Your task to perform on an android device: install app "Microsoft Authenticator" Image 0: 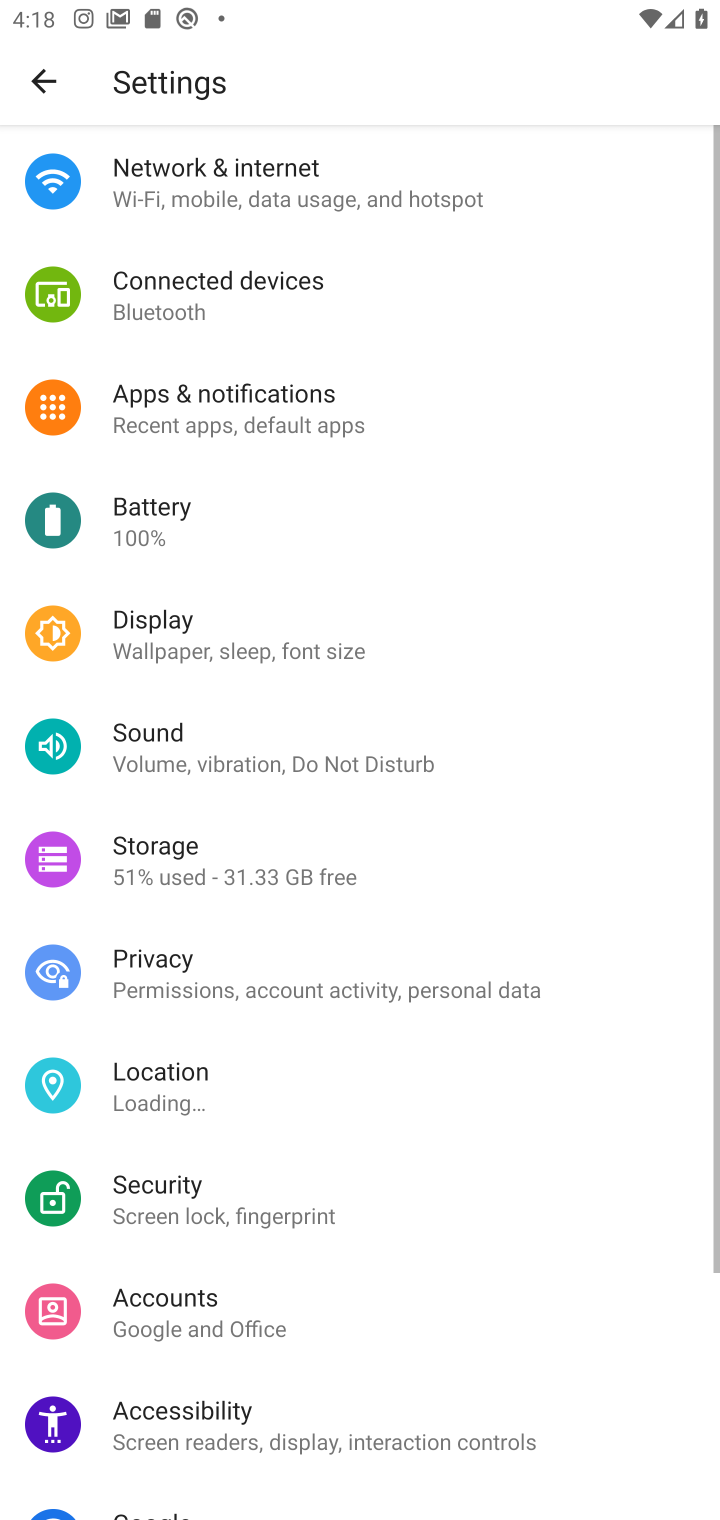
Step 0: press home button
Your task to perform on an android device: install app "Microsoft Authenticator" Image 1: 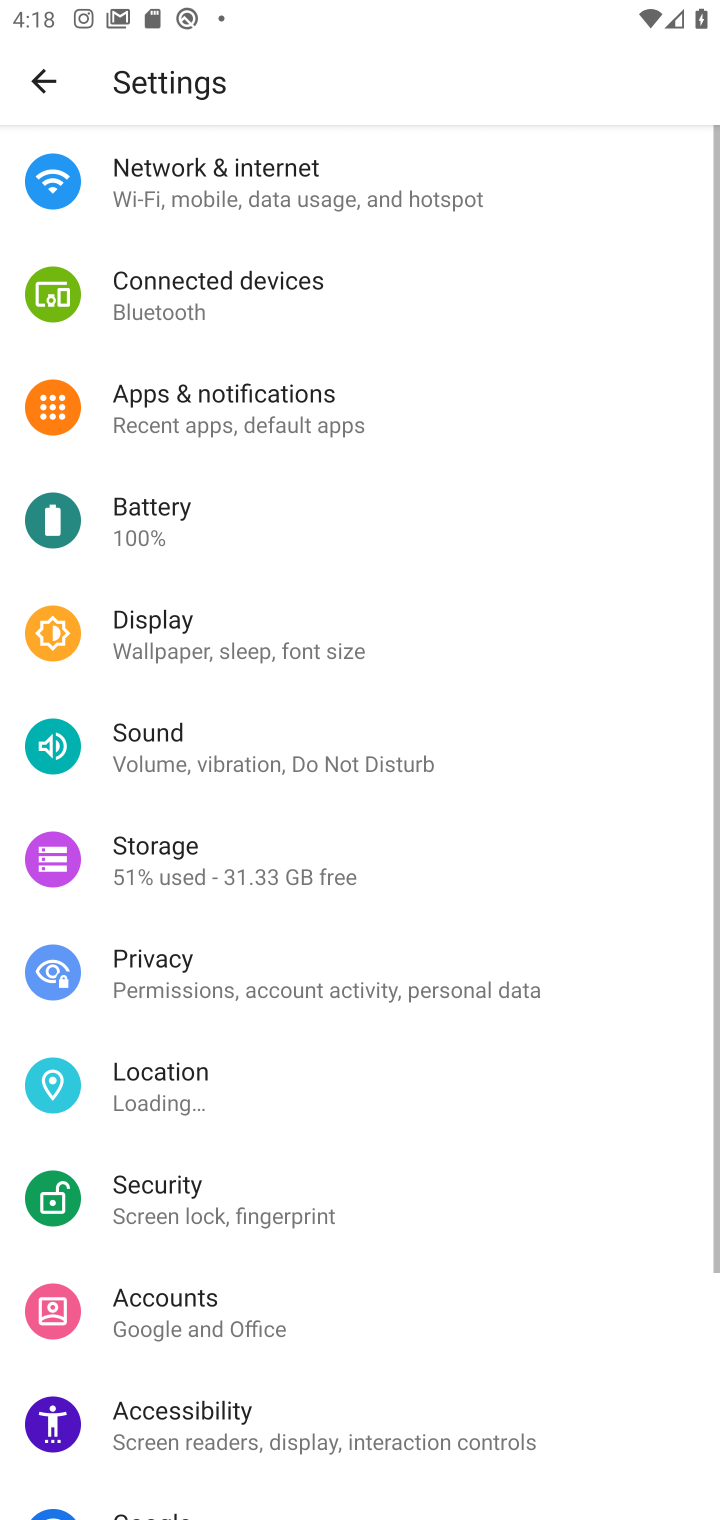
Step 1: press home button
Your task to perform on an android device: install app "Microsoft Authenticator" Image 2: 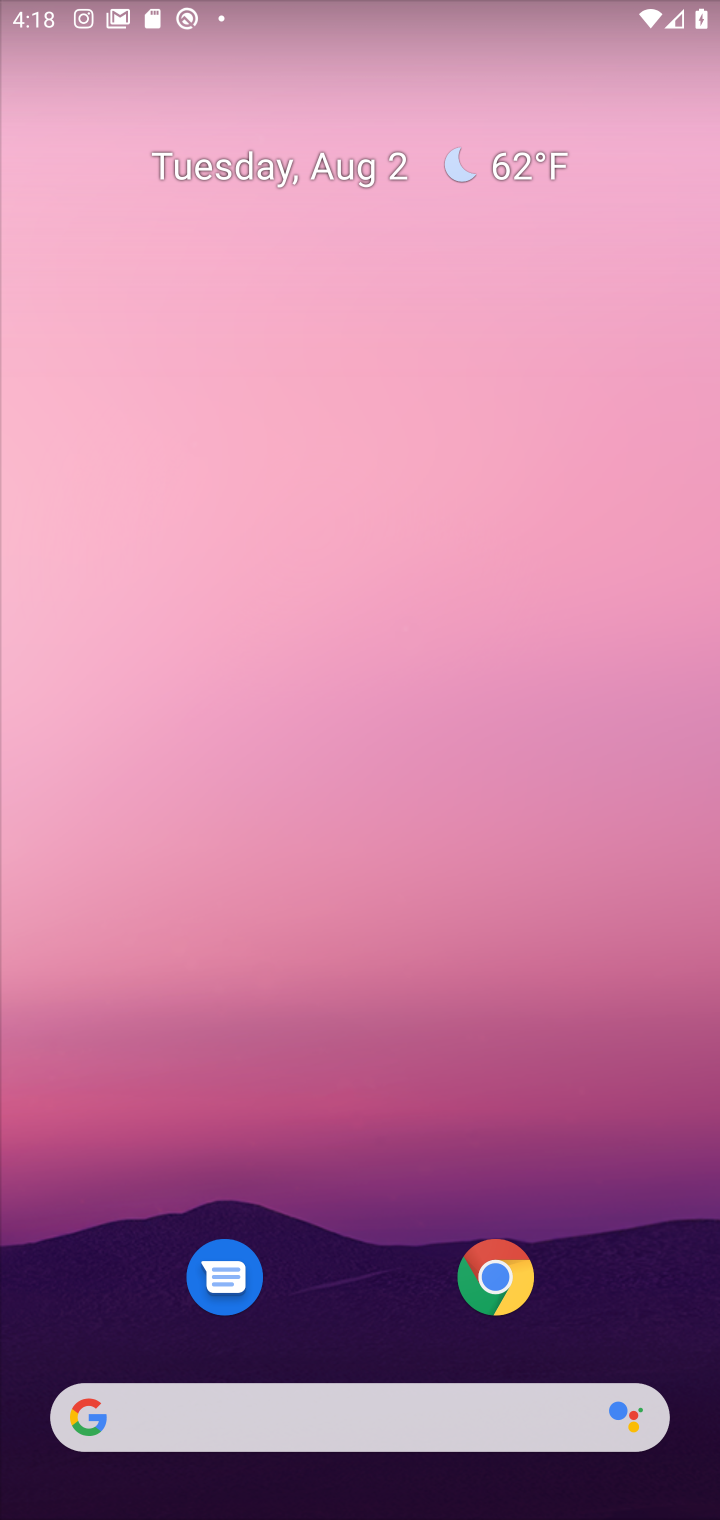
Step 2: press home button
Your task to perform on an android device: install app "Microsoft Authenticator" Image 3: 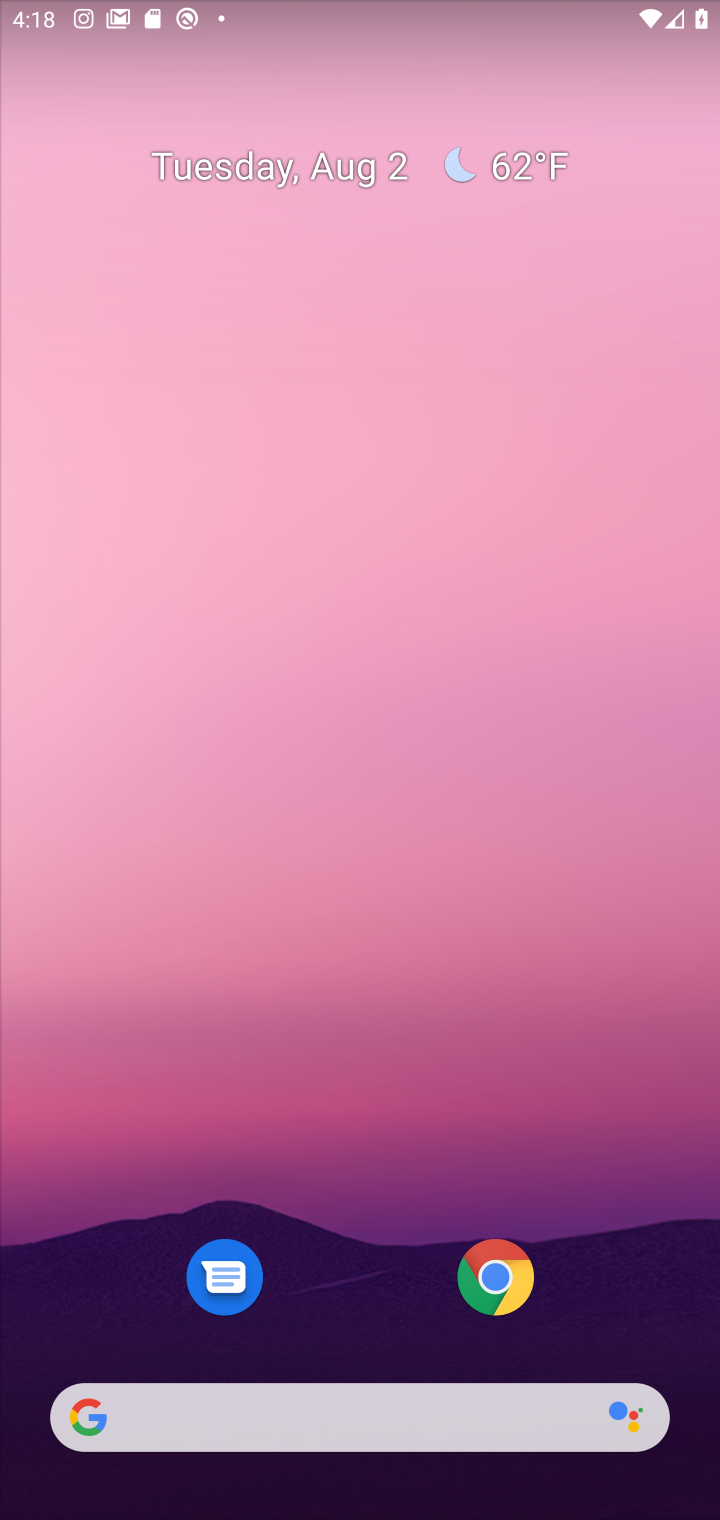
Step 3: drag from (368, 1143) to (428, 222)
Your task to perform on an android device: install app "Microsoft Authenticator" Image 4: 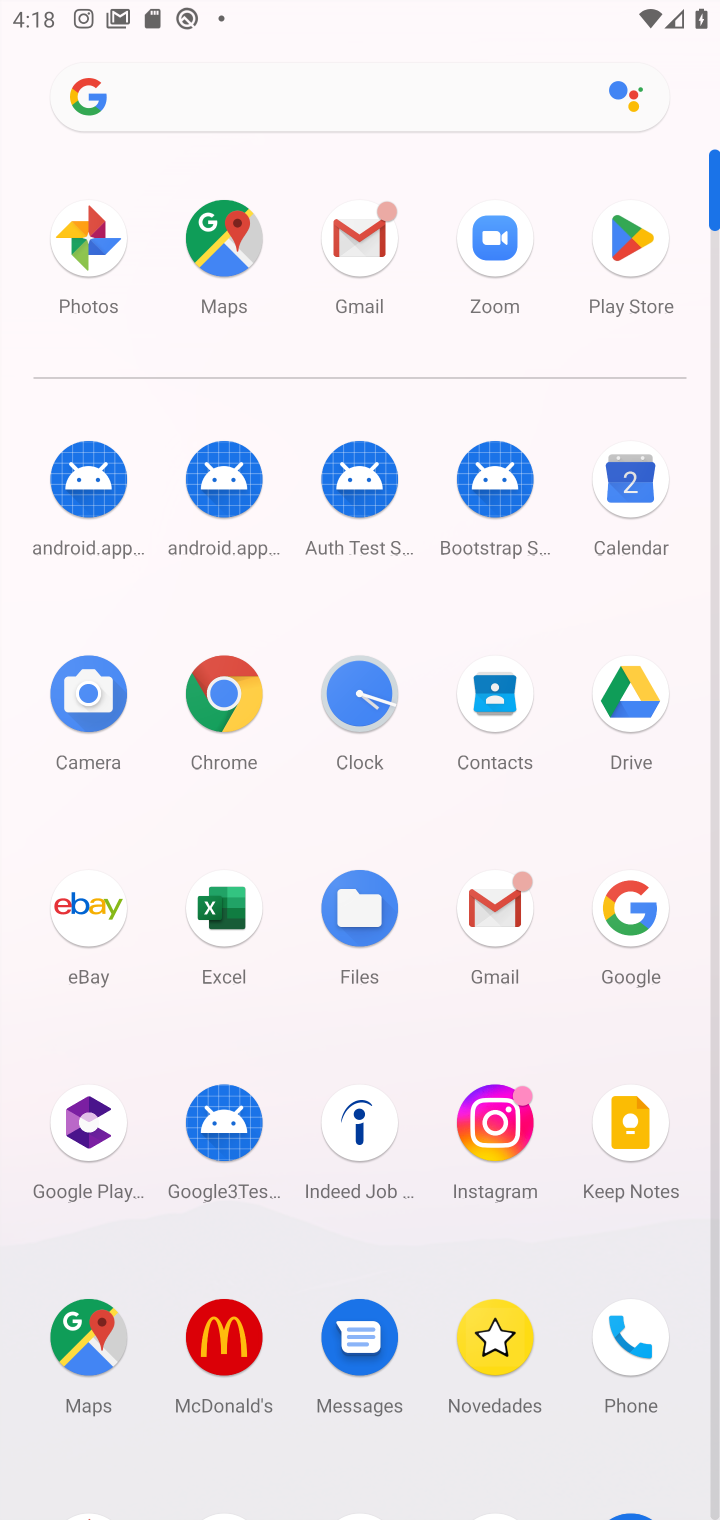
Step 4: drag from (551, 1195) to (618, 406)
Your task to perform on an android device: install app "Microsoft Authenticator" Image 5: 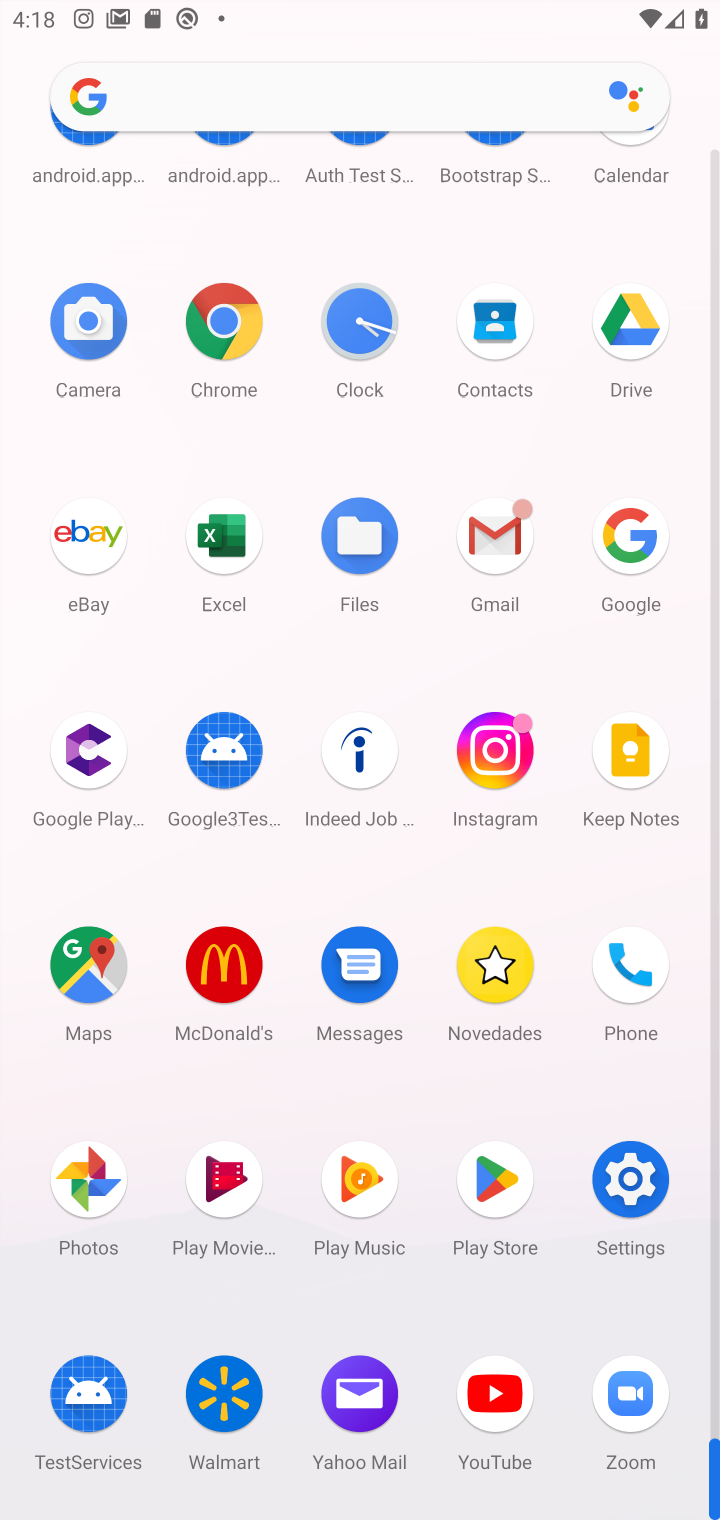
Step 5: click (484, 1173)
Your task to perform on an android device: install app "Microsoft Authenticator" Image 6: 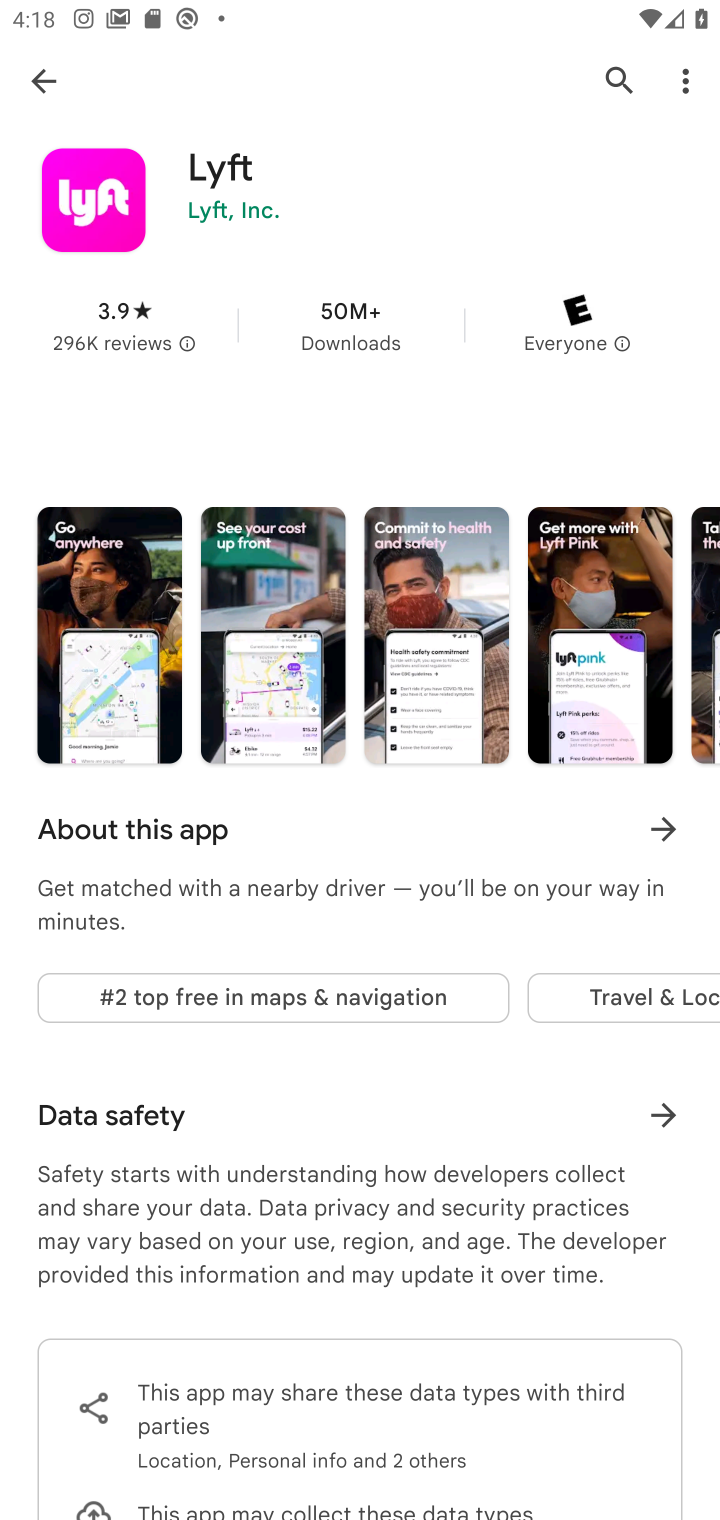
Step 6: click (611, 71)
Your task to perform on an android device: install app "Microsoft Authenticator" Image 7: 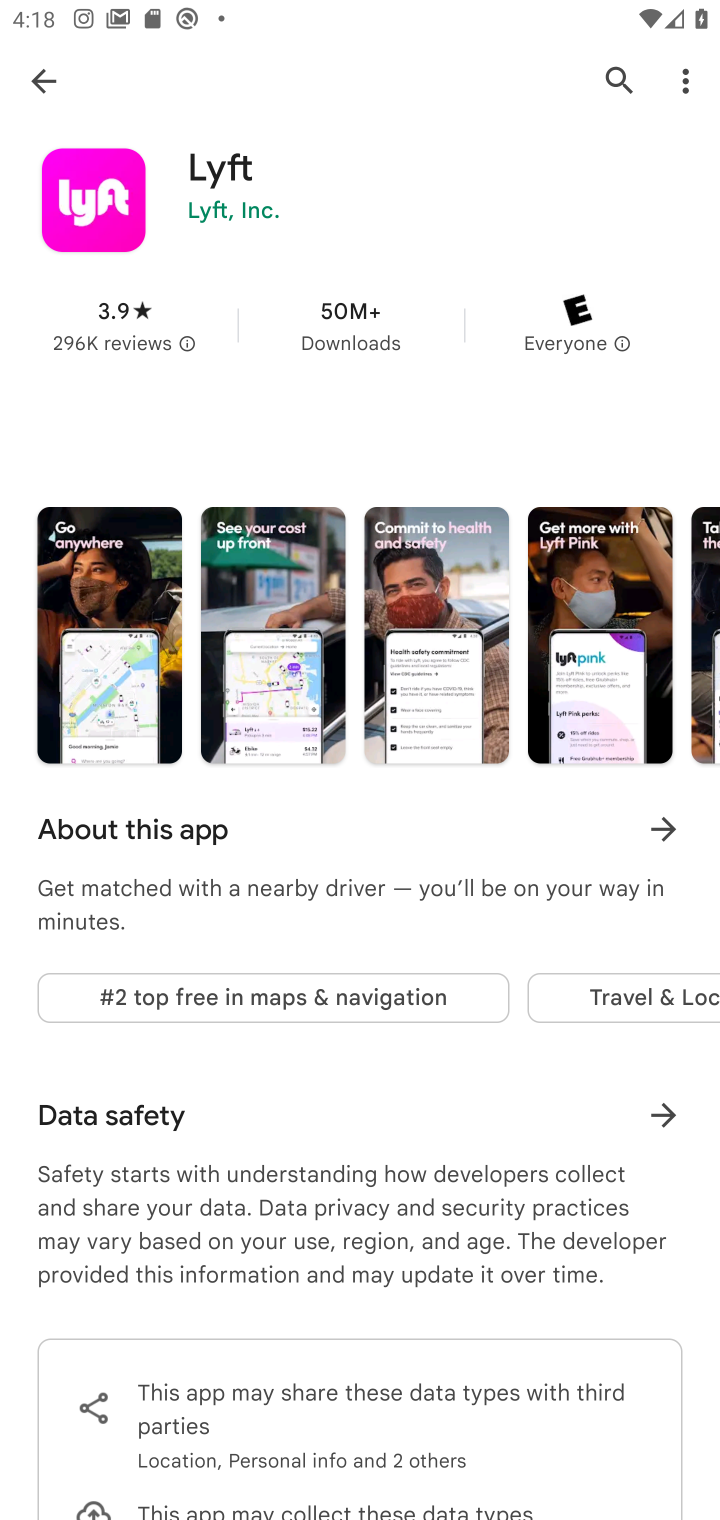
Step 7: click (617, 72)
Your task to perform on an android device: install app "Microsoft Authenticator" Image 8: 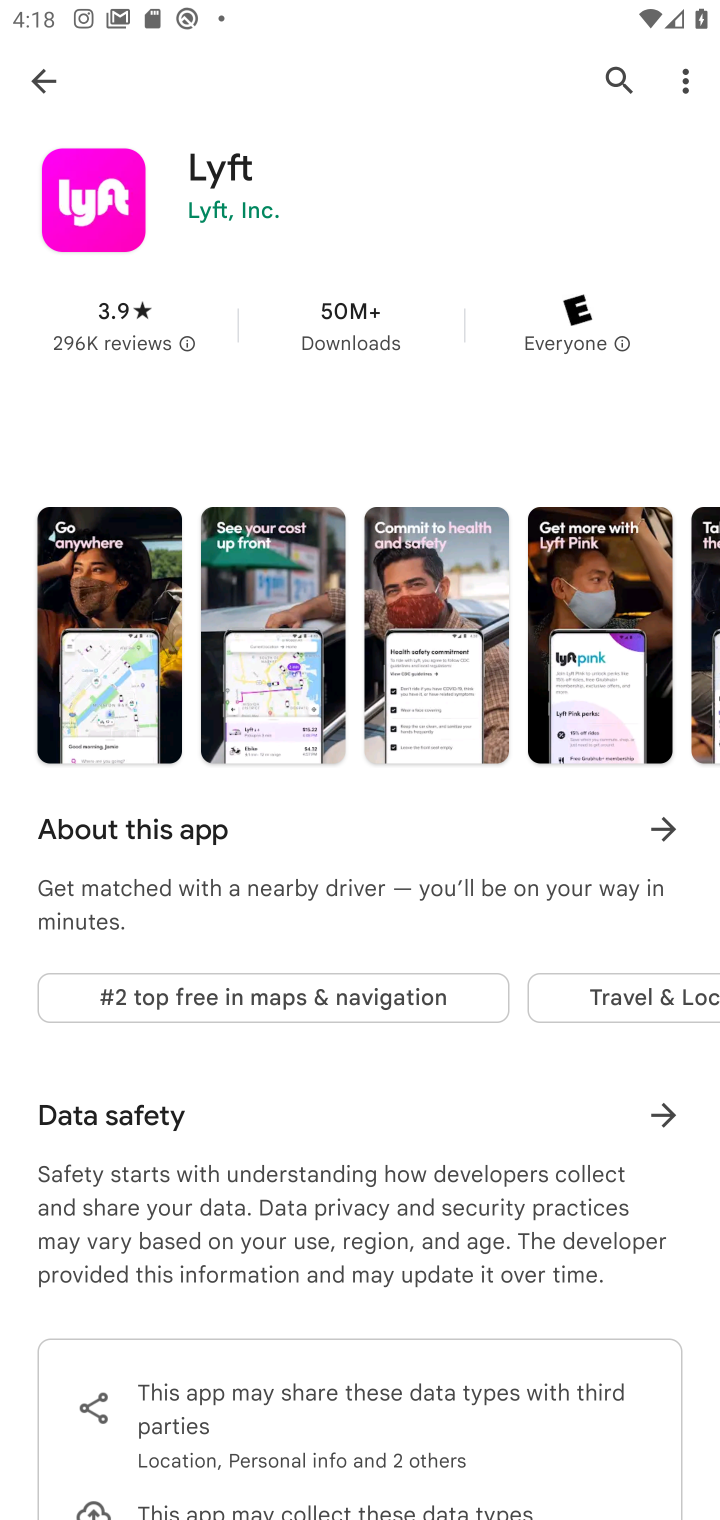
Step 8: press back button
Your task to perform on an android device: install app "Microsoft Authenticator" Image 9: 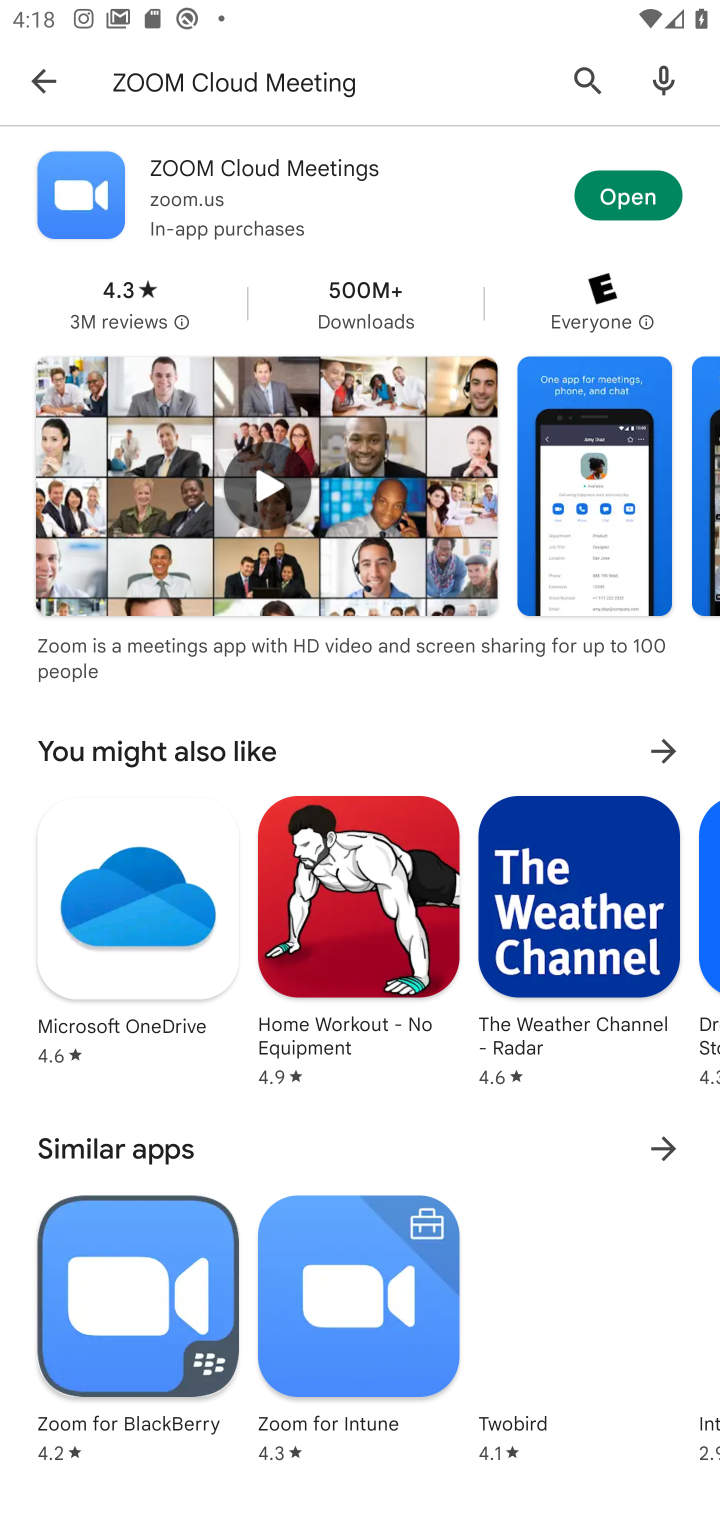
Step 9: click (214, 85)
Your task to perform on an android device: install app "Microsoft Authenticator" Image 10: 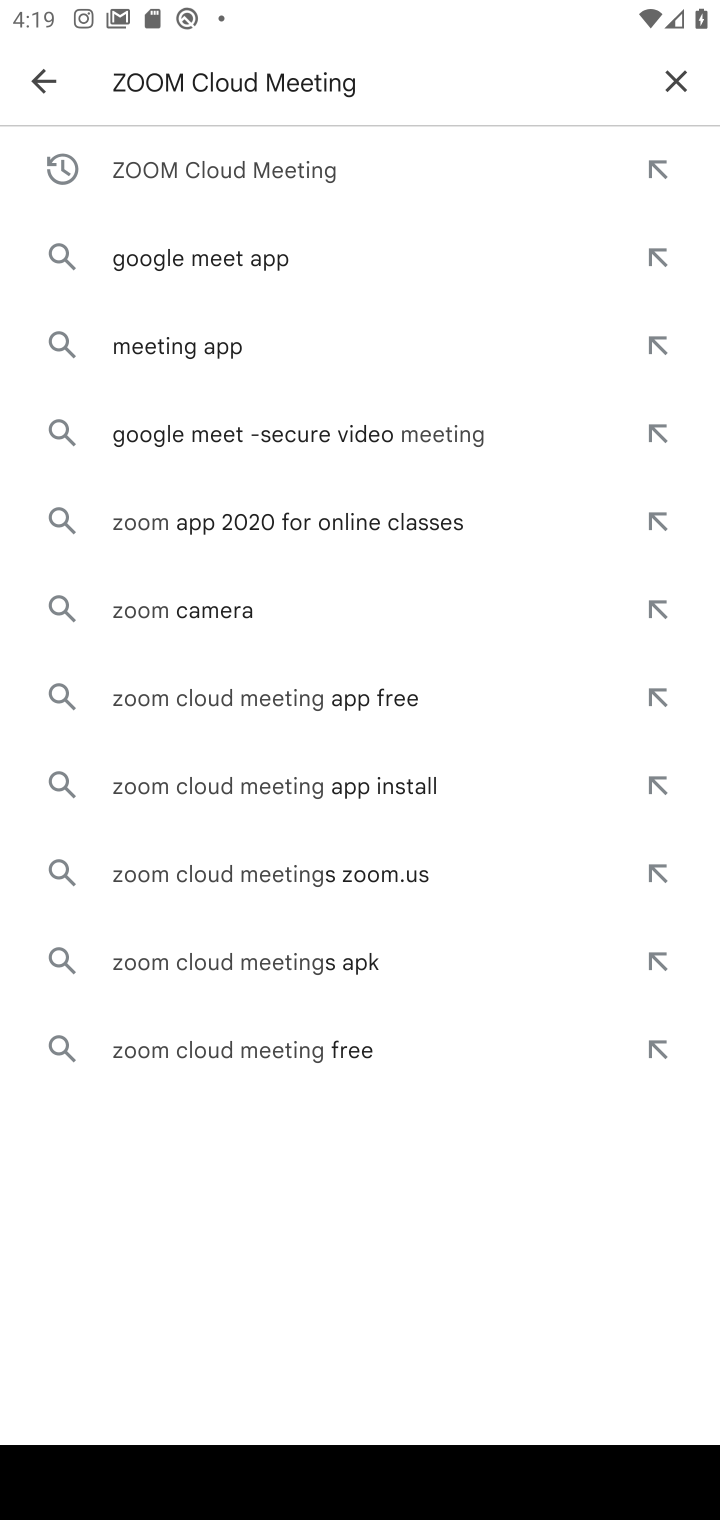
Step 10: click (680, 77)
Your task to perform on an android device: install app "Microsoft Authenticator" Image 11: 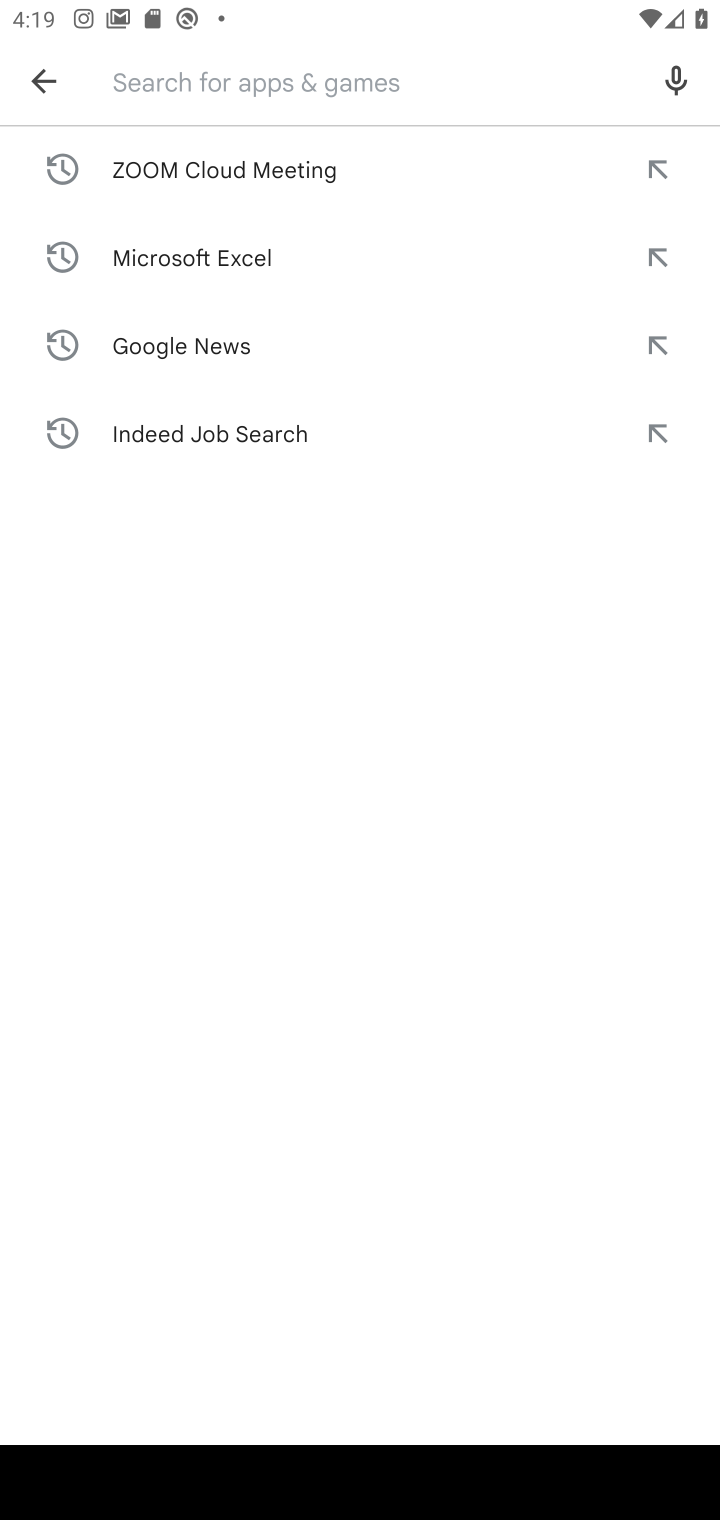
Step 11: type "Microsoft Authenticator"
Your task to perform on an android device: install app "Microsoft Authenticator" Image 12: 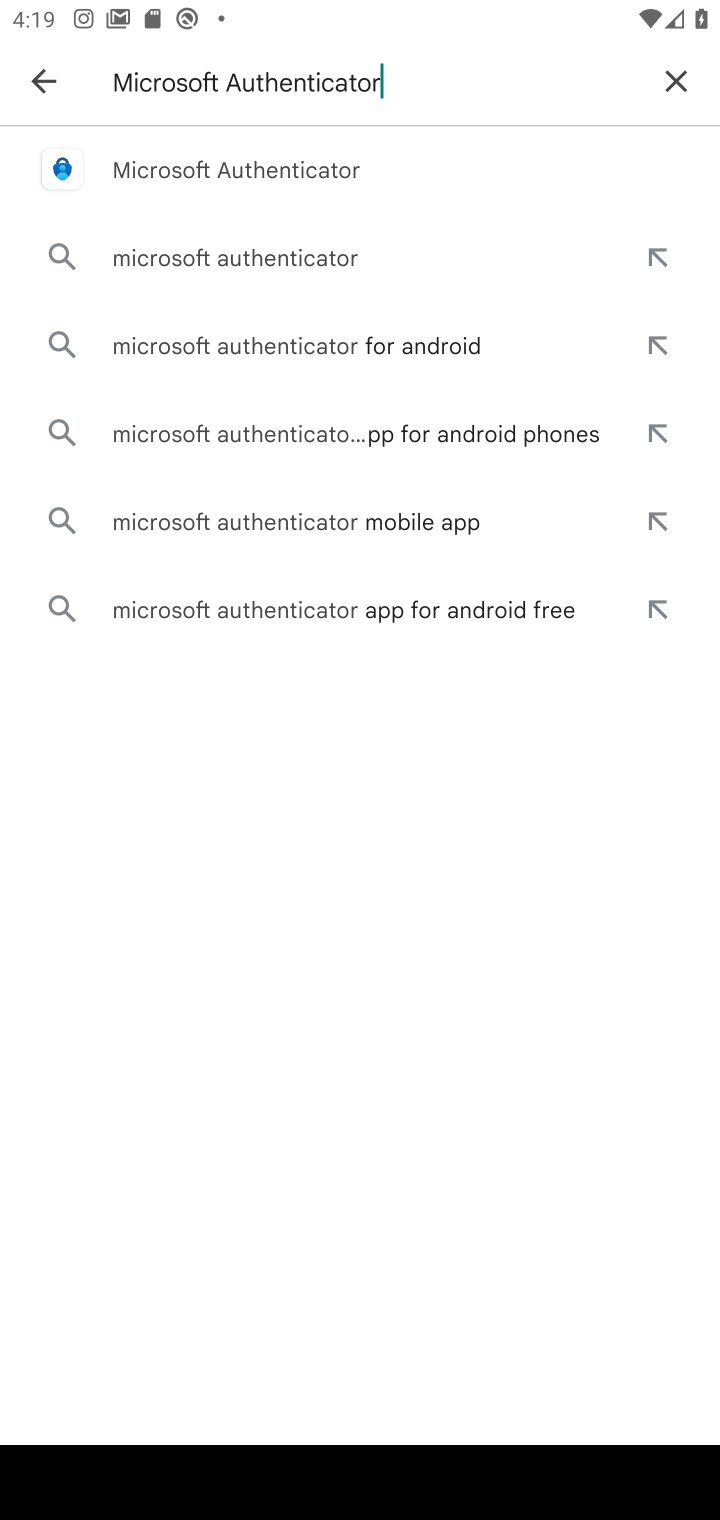
Step 12: click (202, 177)
Your task to perform on an android device: install app "Microsoft Authenticator" Image 13: 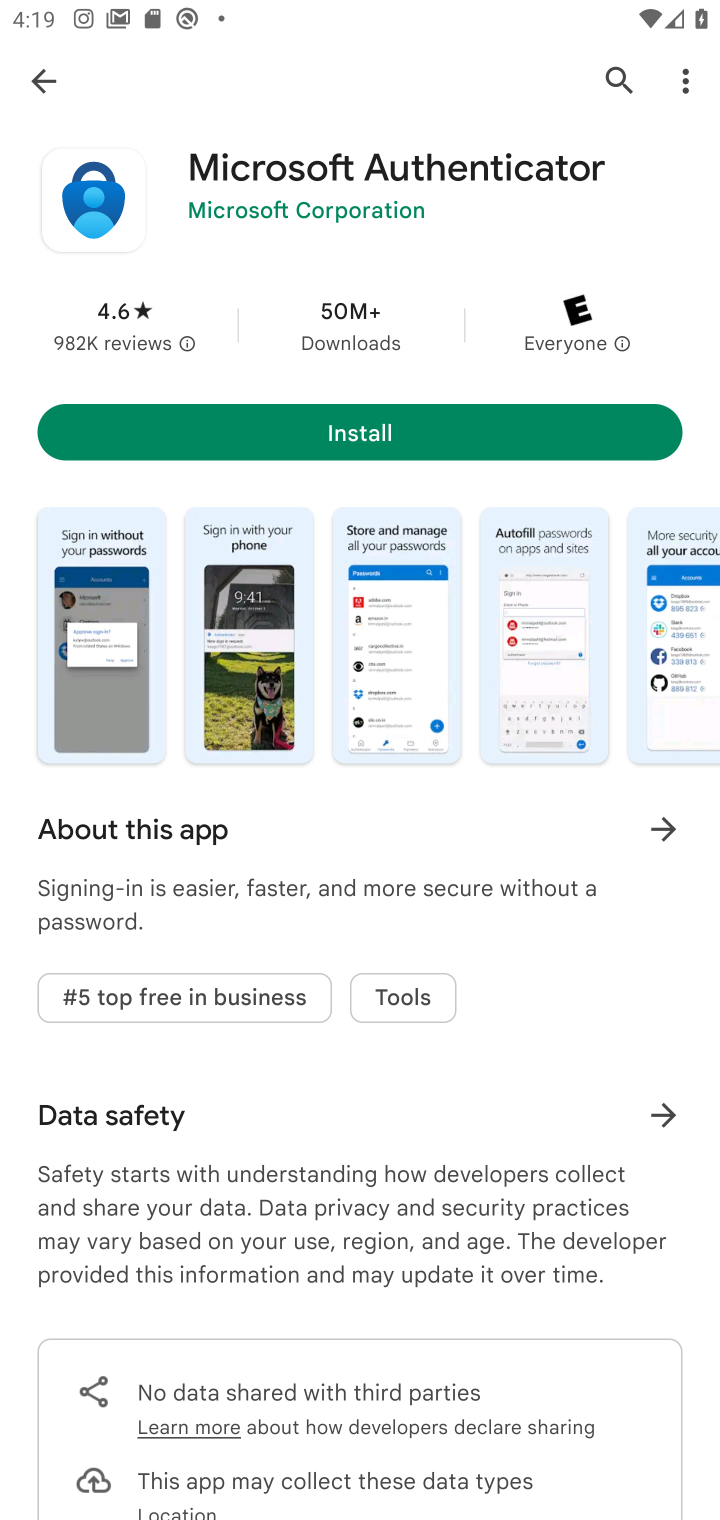
Step 13: click (438, 423)
Your task to perform on an android device: install app "Microsoft Authenticator" Image 14: 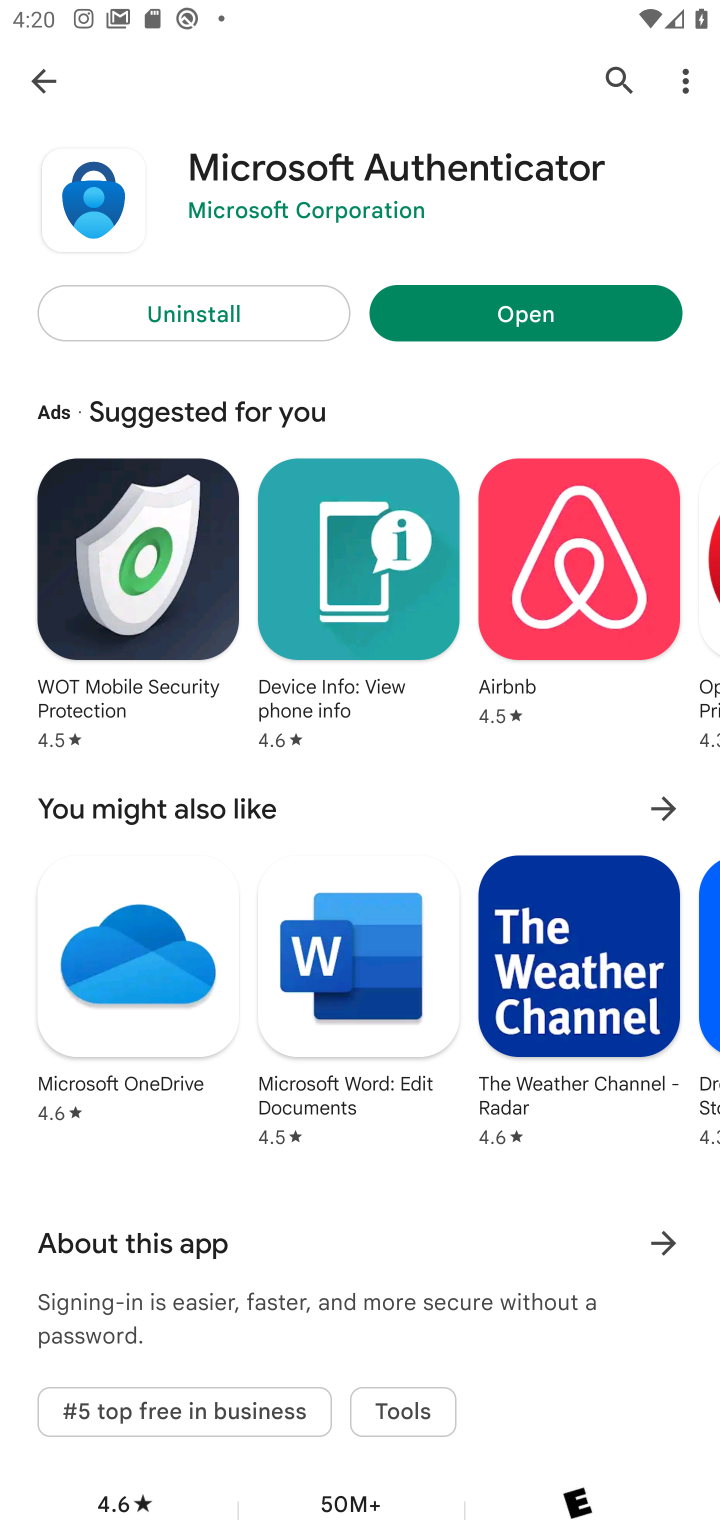
Step 14: task complete